Your task to perform on an android device: Open the calendar and show me this week's events Image 0: 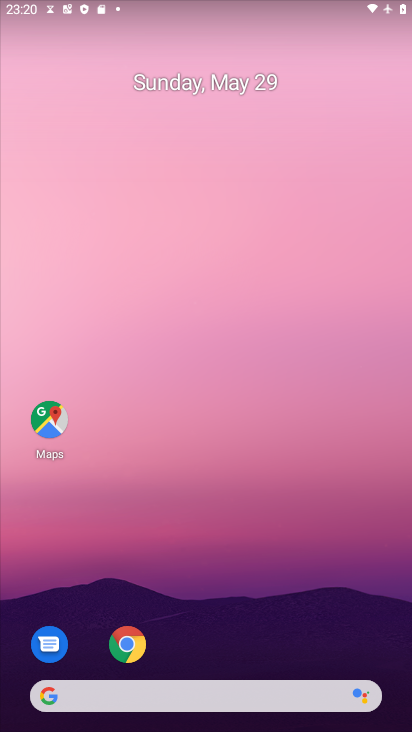
Step 0: drag from (273, 563) to (289, 244)
Your task to perform on an android device: Open the calendar and show me this week's events Image 1: 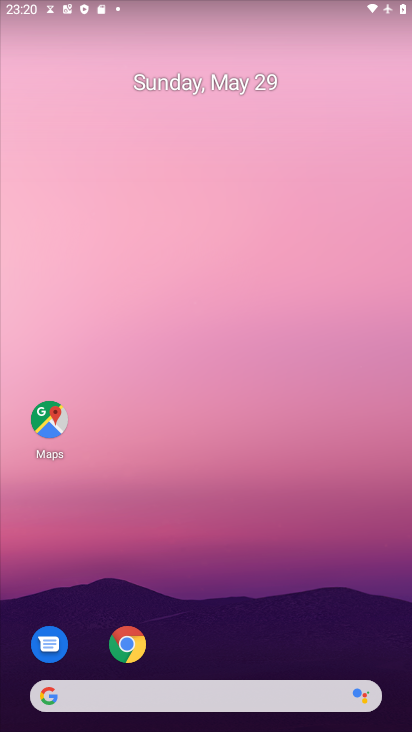
Step 1: drag from (238, 634) to (232, 236)
Your task to perform on an android device: Open the calendar and show me this week's events Image 2: 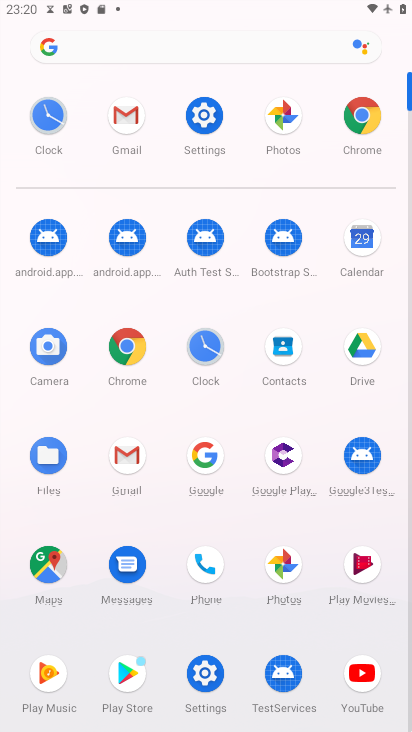
Step 2: click (356, 234)
Your task to perform on an android device: Open the calendar and show me this week's events Image 3: 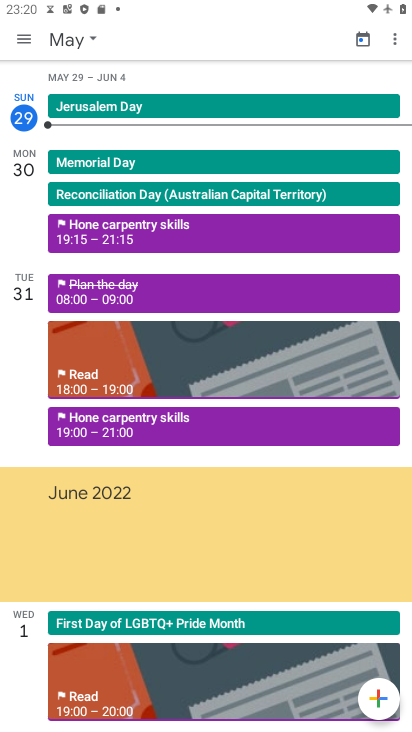
Step 3: click (23, 36)
Your task to perform on an android device: Open the calendar and show me this week's events Image 4: 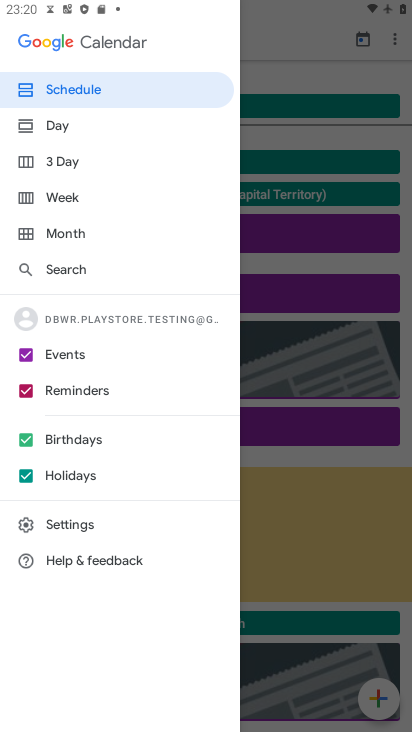
Step 4: click (77, 202)
Your task to perform on an android device: Open the calendar and show me this week's events Image 5: 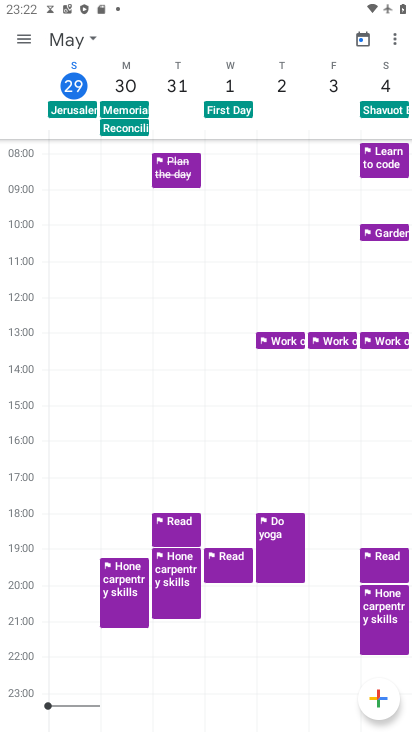
Step 5: task complete